Your task to perform on an android device: Open Youtube and go to "Your channel" Image 0: 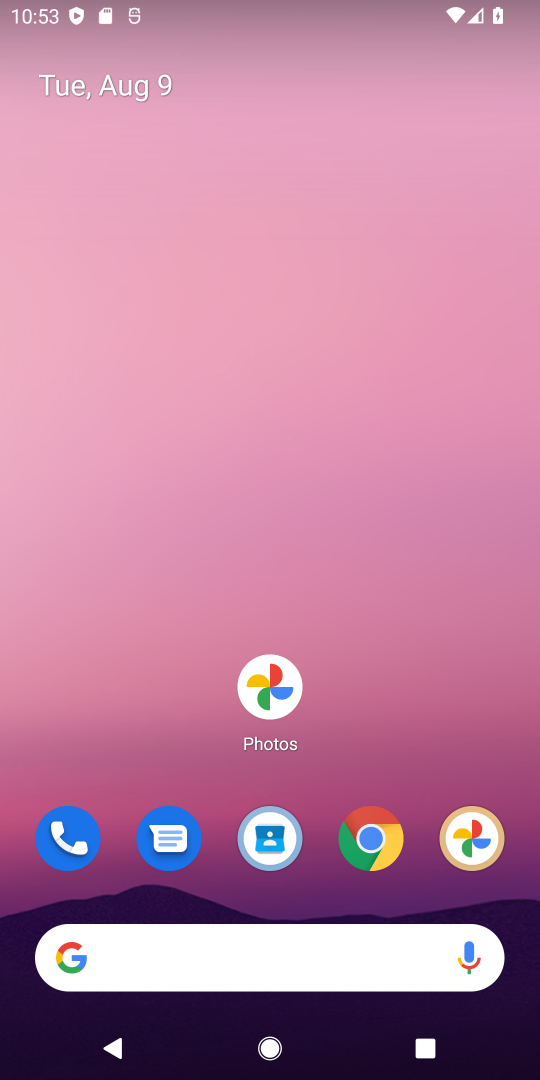
Step 0: drag from (191, 900) to (318, 163)
Your task to perform on an android device: Open Youtube and go to "Your channel" Image 1: 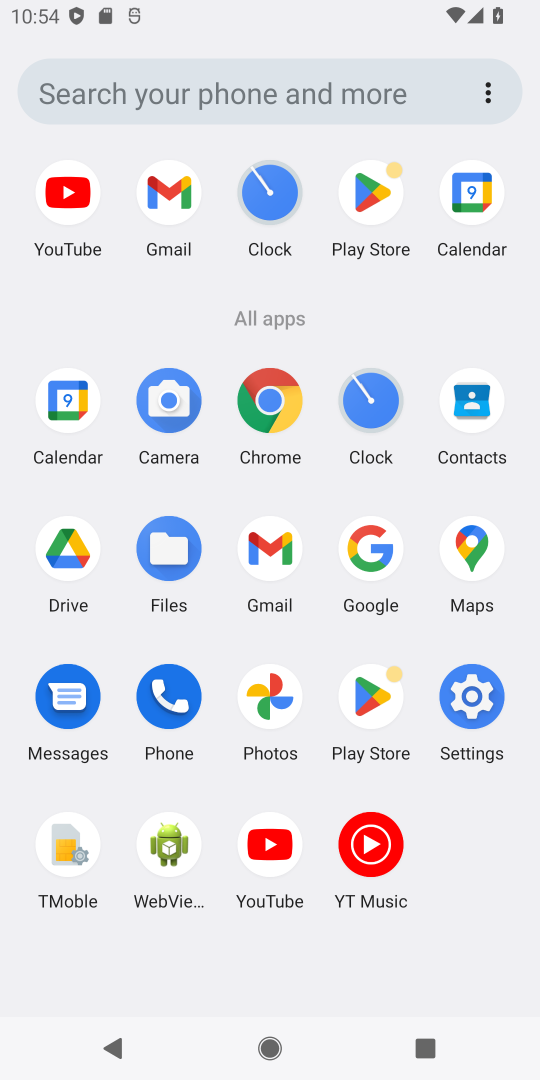
Step 1: click (238, 856)
Your task to perform on an android device: Open Youtube and go to "Your channel" Image 2: 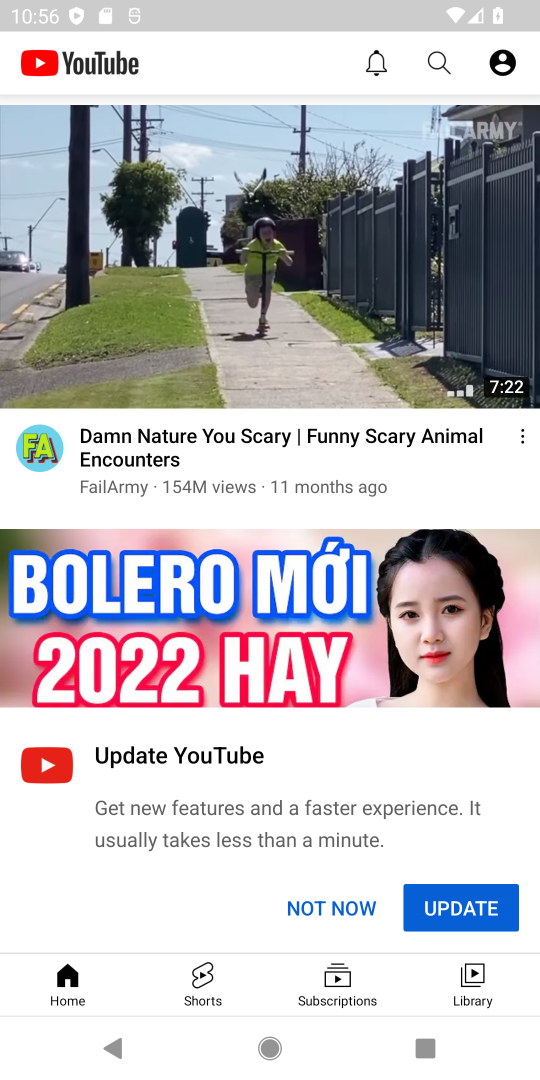
Step 2: click (490, 82)
Your task to perform on an android device: Open Youtube and go to "Your channel" Image 3: 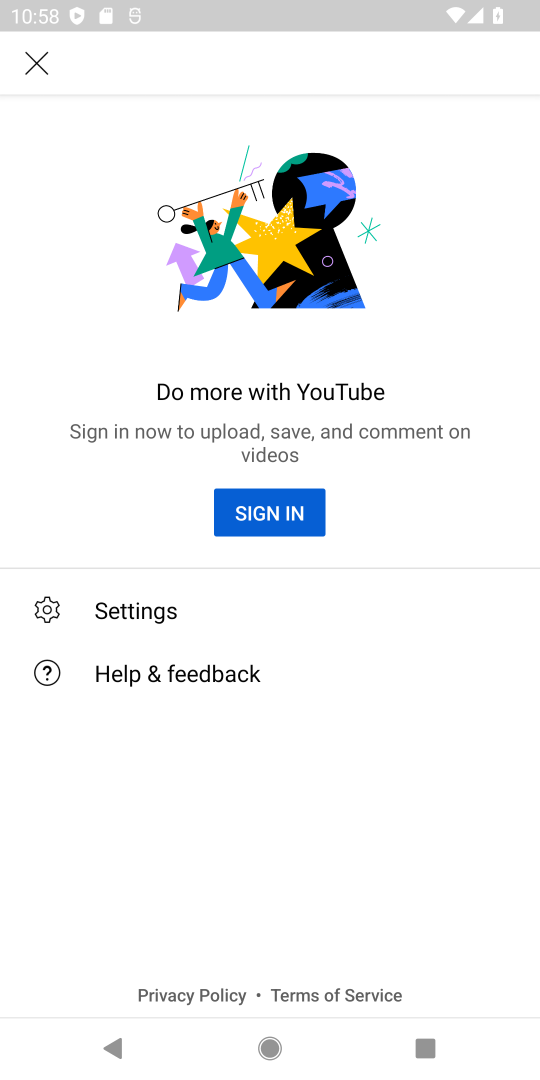
Step 3: task complete